Your task to perform on an android device: Go to internet settings Image 0: 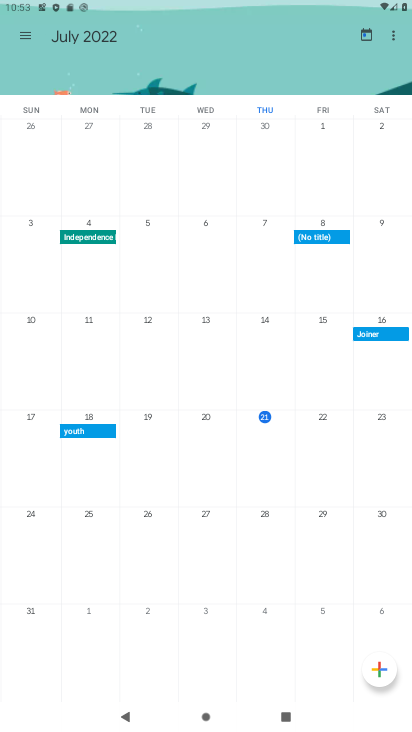
Step 0: press home button
Your task to perform on an android device: Go to internet settings Image 1: 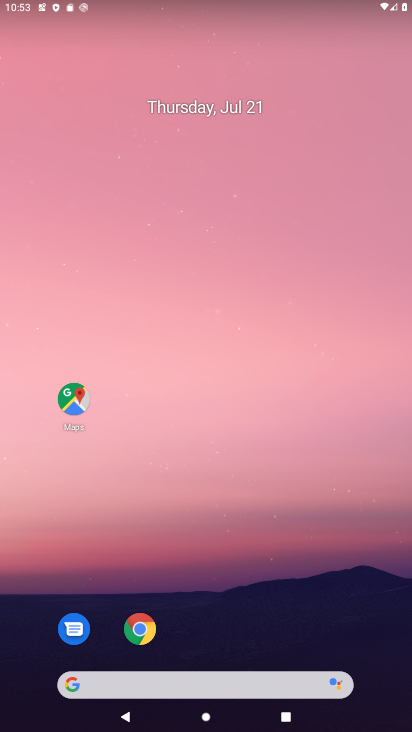
Step 1: drag from (242, 553) to (261, 257)
Your task to perform on an android device: Go to internet settings Image 2: 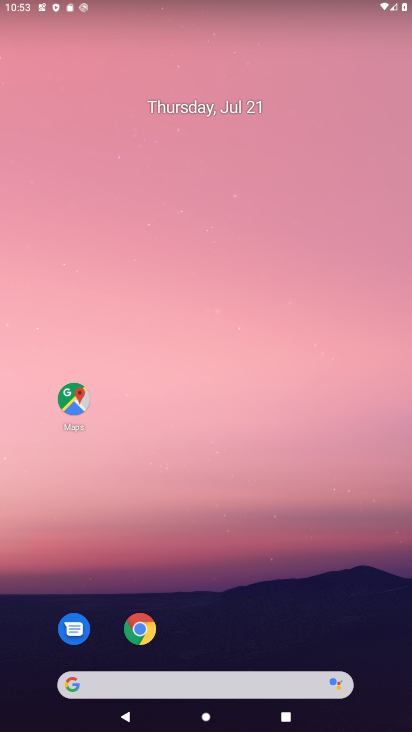
Step 2: drag from (240, 491) to (256, 204)
Your task to perform on an android device: Go to internet settings Image 3: 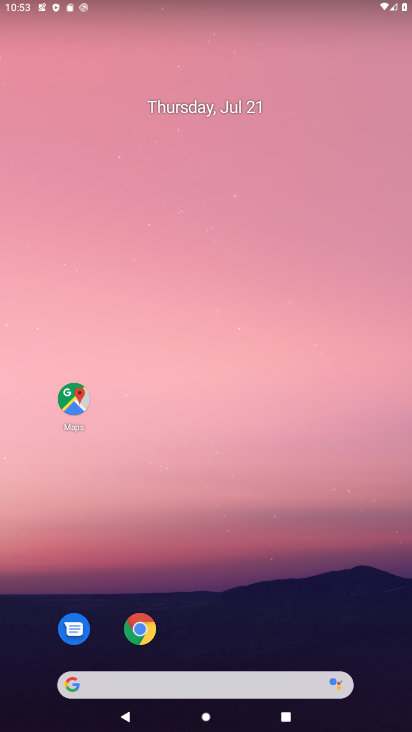
Step 3: drag from (244, 484) to (249, 226)
Your task to perform on an android device: Go to internet settings Image 4: 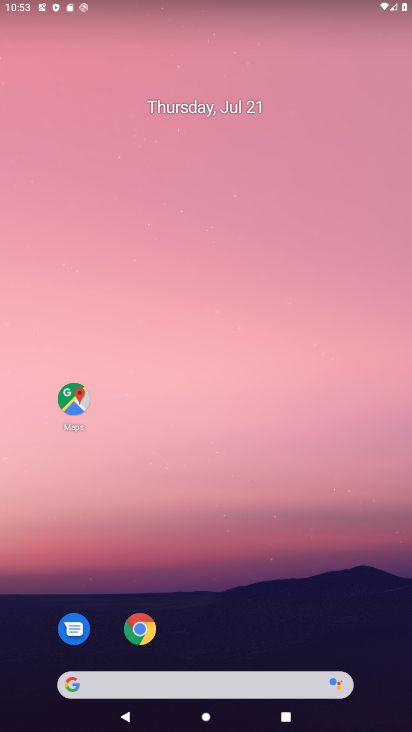
Step 4: drag from (251, 565) to (258, 294)
Your task to perform on an android device: Go to internet settings Image 5: 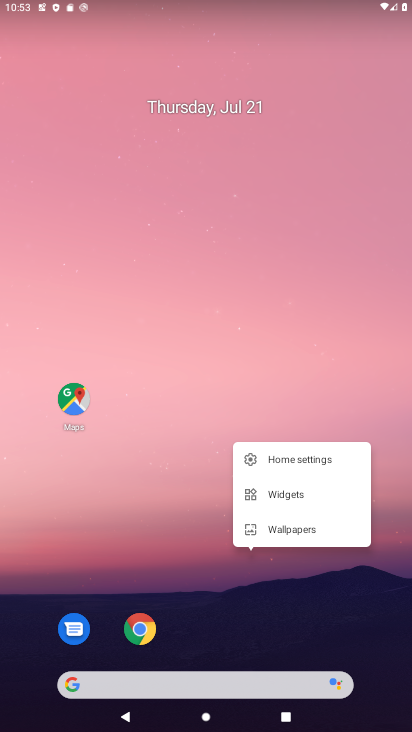
Step 5: click (240, 355)
Your task to perform on an android device: Go to internet settings Image 6: 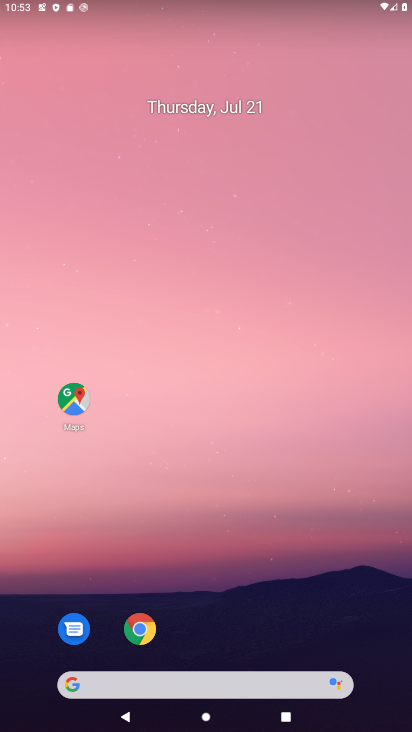
Step 6: drag from (275, 563) to (311, 220)
Your task to perform on an android device: Go to internet settings Image 7: 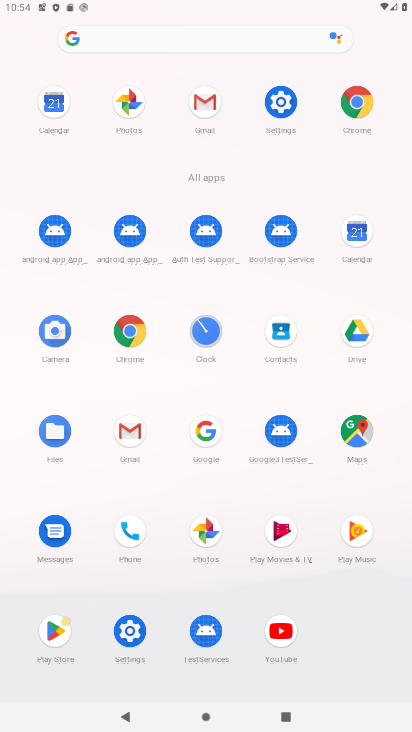
Step 7: click (126, 631)
Your task to perform on an android device: Go to internet settings Image 8: 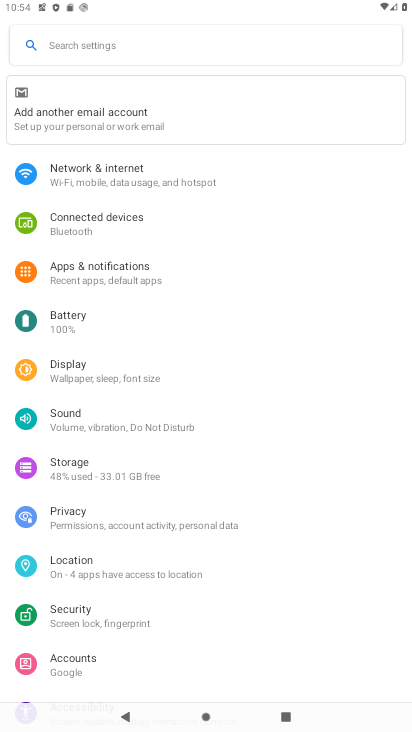
Step 8: click (133, 168)
Your task to perform on an android device: Go to internet settings Image 9: 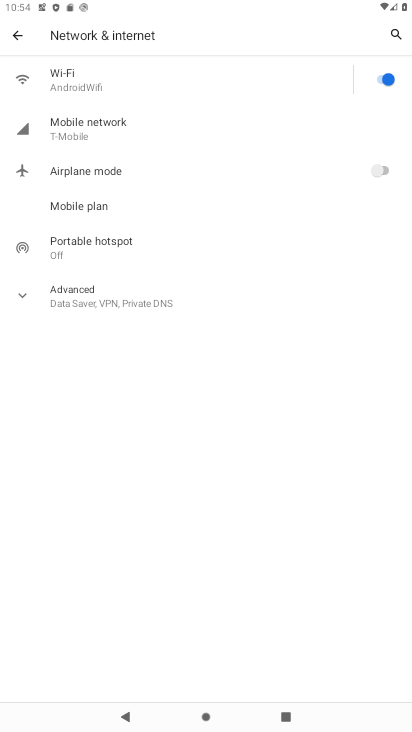
Step 9: task complete